Your task to perform on an android device: Show me productivity apps on the Play Store Image 0: 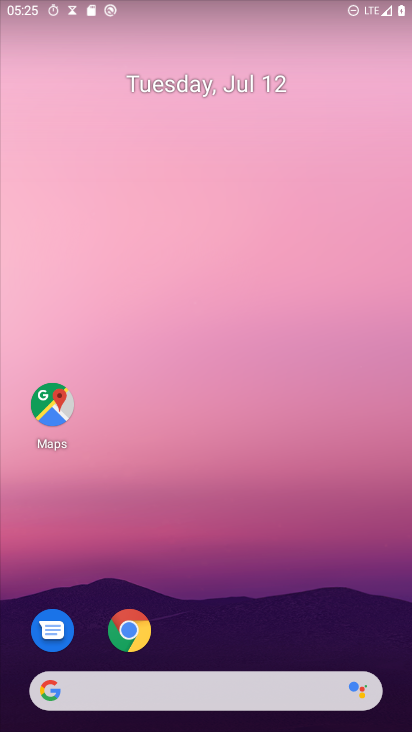
Step 0: drag from (268, 657) to (274, 9)
Your task to perform on an android device: Show me productivity apps on the Play Store Image 1: 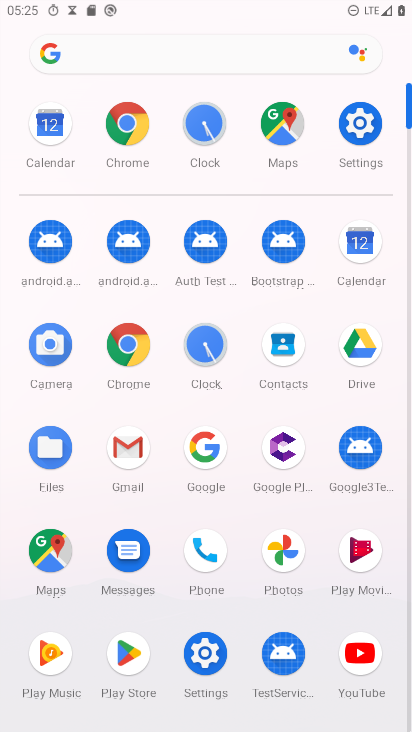
Step 1: click (137, 648)
Your task to perform on an android device: Show me productivity apps on the Play Store Image 2: 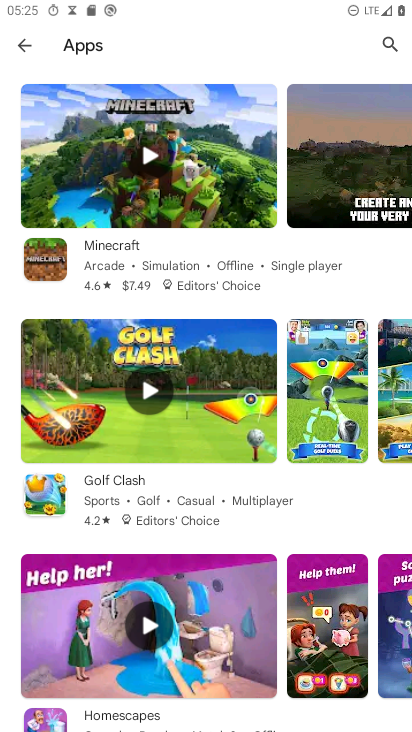
Step 2: press back button
Your task to perform on an android device: Show me productivity apps on the Play Store Image 3: 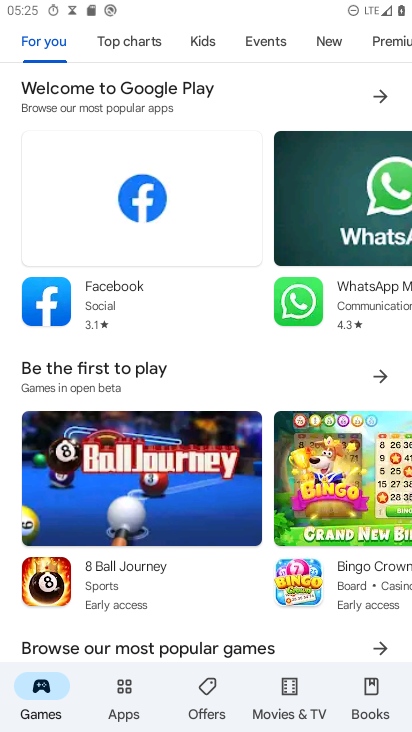
Step 3: click (128, 682)
Your task to perform on an android device: Show me productivity apps on the Play Store Image 4: 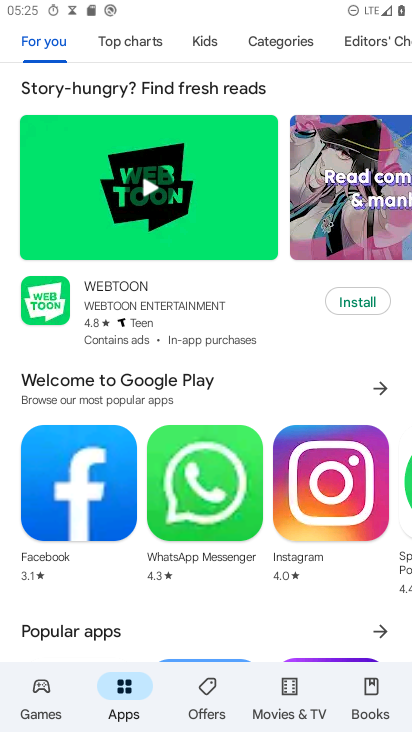
Step 4: drag from (208, 616) to (209, 159)
Your task to perform on an android device: Show me productivity apps on the Play Store Image 5: 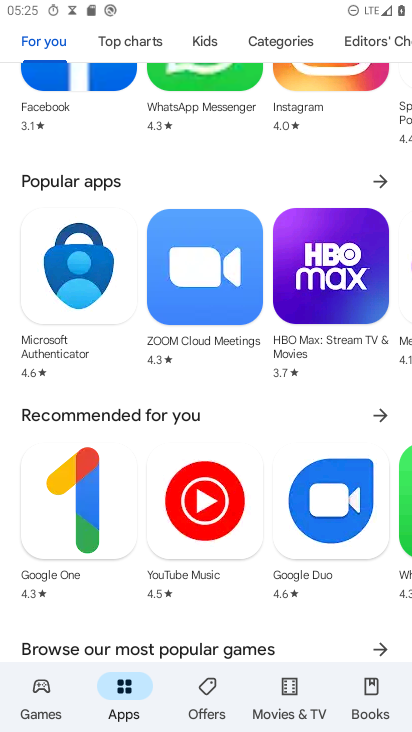
Step 5: drag from (216, 608) to (223, 187)
Your task to perform on an android device: Show me productivity apps on the Play Store Image 6: 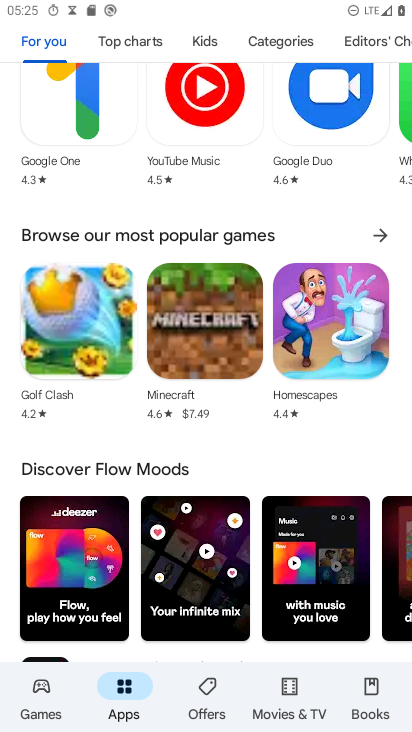
Step 6: drag from (216, 639) to (271, 123)
Your task to perform on an android device: Show me productivity apps on the Play Store Image 7: 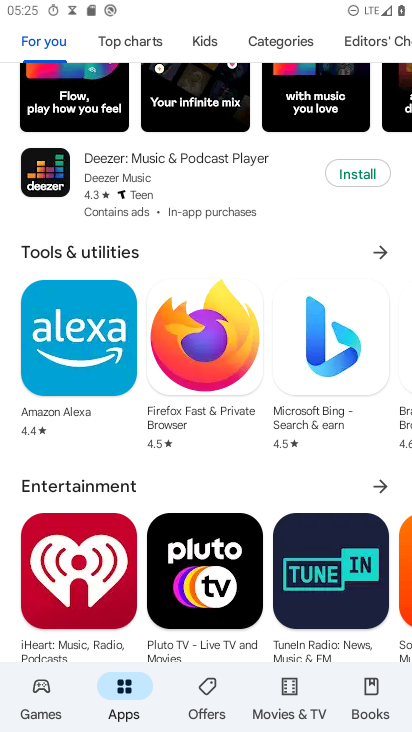
Step 7: drag from (262, 642) to (341, 275)
Your task to perform on an android device: Show me productivity apps on the Play Store Image 8: 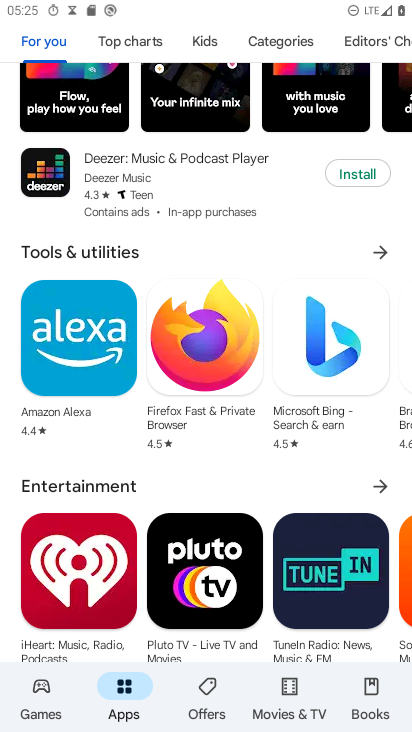
Step 8: drag from (236, 435) to (247, 65)
Your task to perform on an android device: Show me productivity apps on the Play Store Image 9: 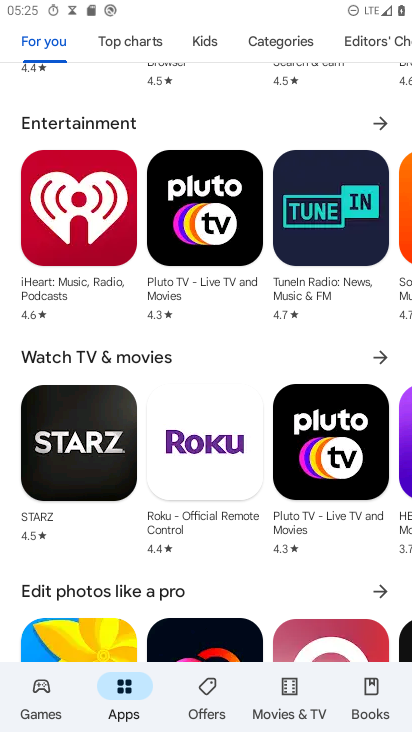
Step 9: drag from (246, 533) to (267, 30)
Your task to perform on an android device: Show me productivity apps on the Play Store Image 10: 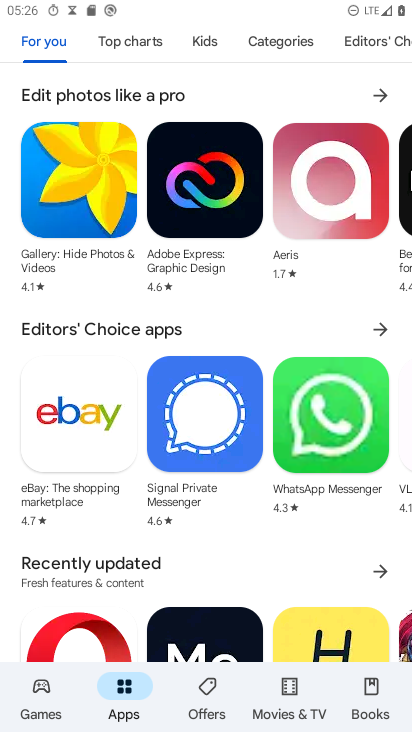
Step 10: drag from (281, 565) to (295, 70)
Your task to perform on an android device: Show me productivity apps on the Play Store Image 11: 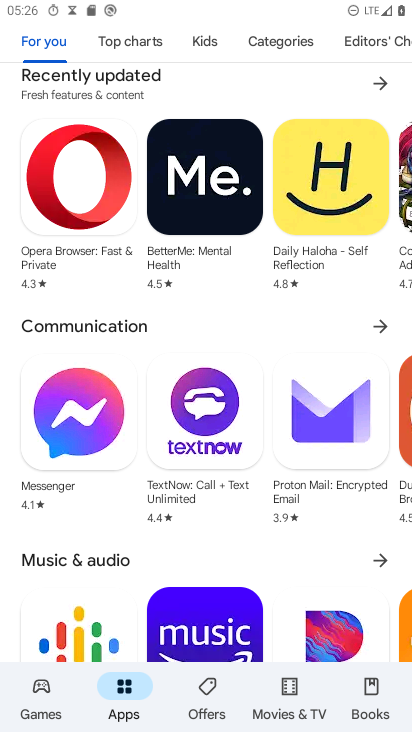
Step 11: drag from (251, 565) to (305, 62)
Your task to perform on an android device: Show me productivity apps on the Play Store Image 12: 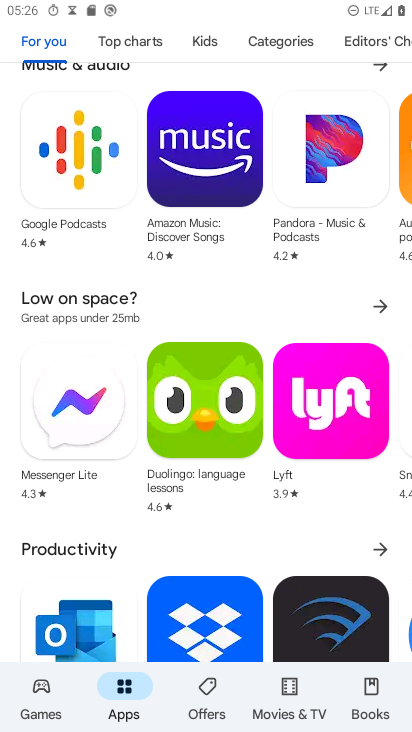
Step 12: click (382, 549)
Your task to perform on an android device: Show me productivity apps on the Play Store Image 13: 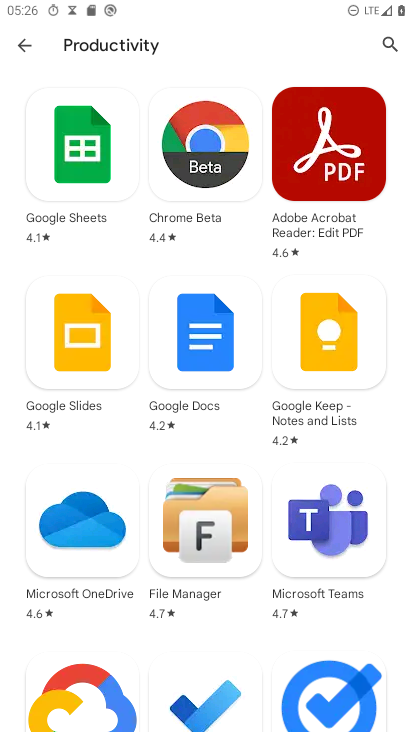
Step 13: task complete